Your task to perform on an android device: Open Amazon Image 0: 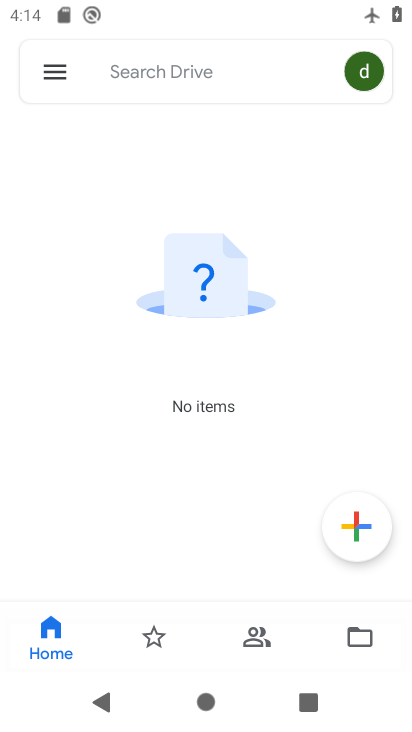
Step 0: press home button
Your task to perform on an android device: Open Amazon Image 1: 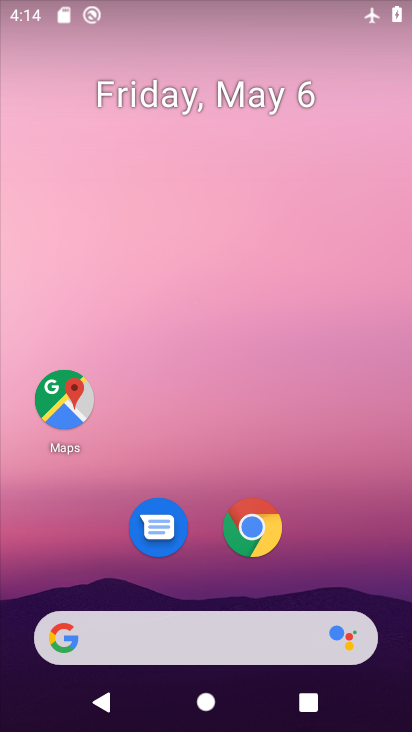
Step 1: click (243, 527)
Your task to perform on an android device: Open Amazon Image 2: 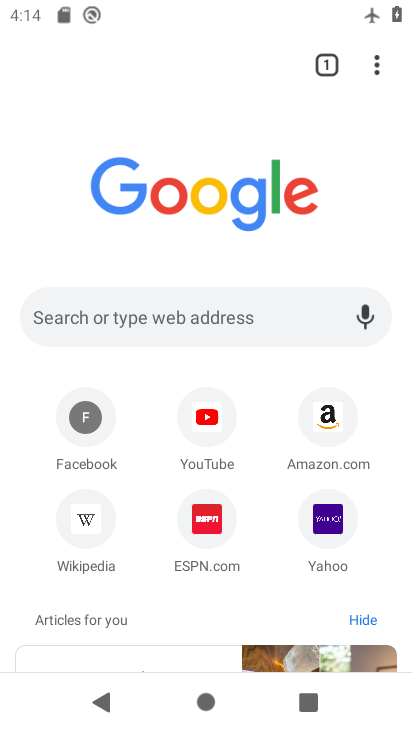
Step 2: click (323, 423)
Your task to perform on an android device: Open Amazon Image 3: 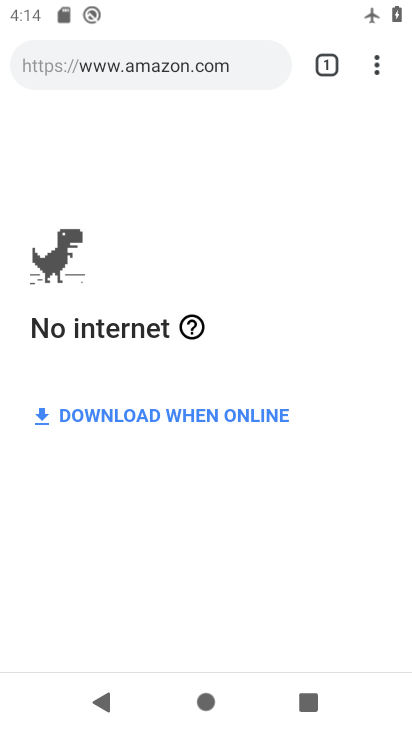
Step 3: task complete